Your task to perform on an android device: What's the weather today? Image 0: 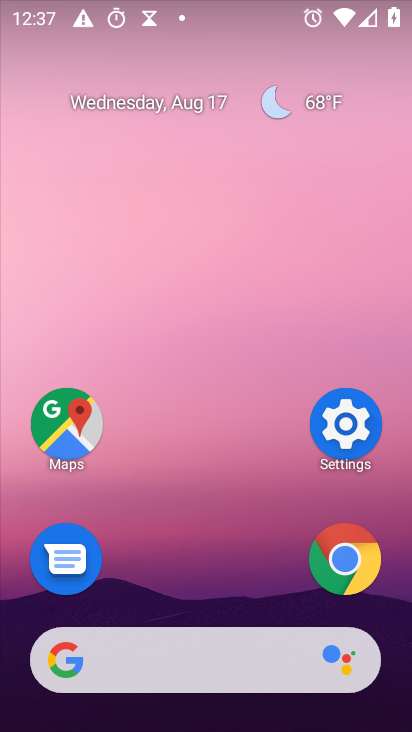
Step 0: click (136, 658)
Your task to perform on an android device: What's the weather today? Image 1: 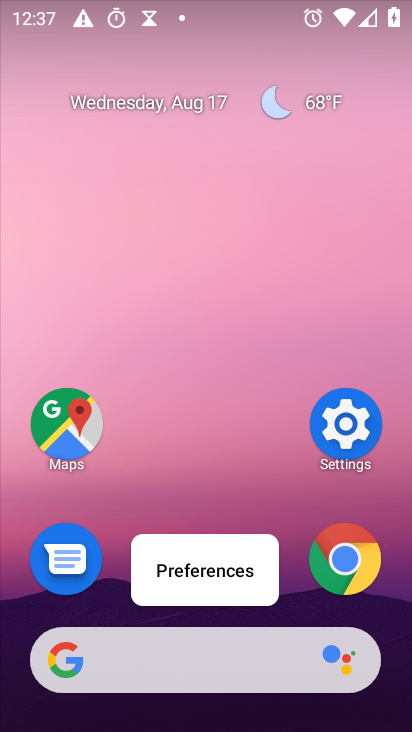
Step 1: click (136, 656)
Your task to perform on an android device: What's the weather today? Image 2: 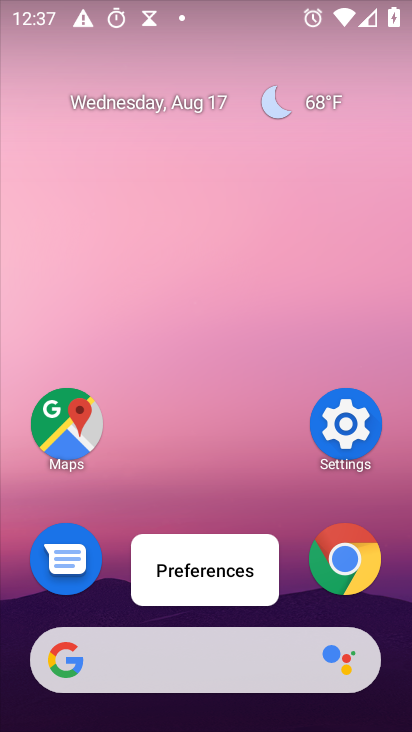
Step 2: click (138, 657)
Your task to perform on an android device: What's the weather today? Image 3: 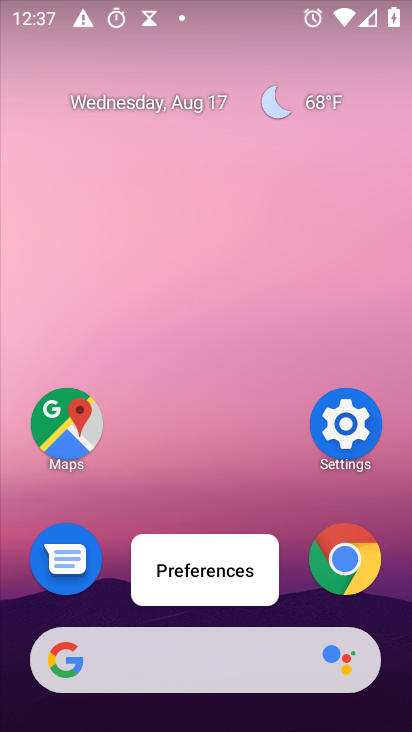
Step 3: click (146, 655)
Your task to perform on an android device: What's the weather today? Image 4: 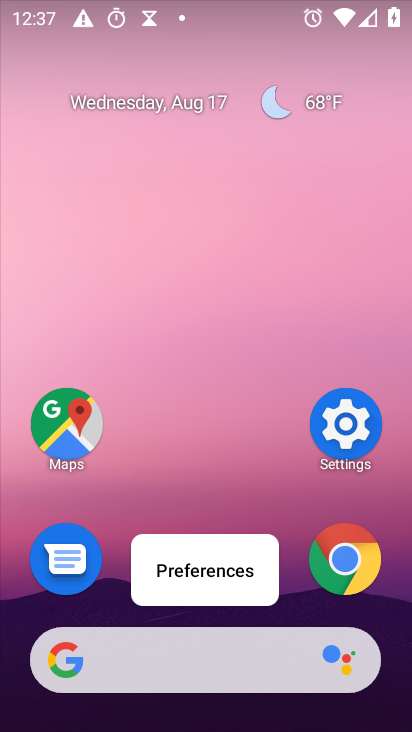
Step 4: click (146, 661)
Your task to perform on an android device: What's the weather today? Image 5: 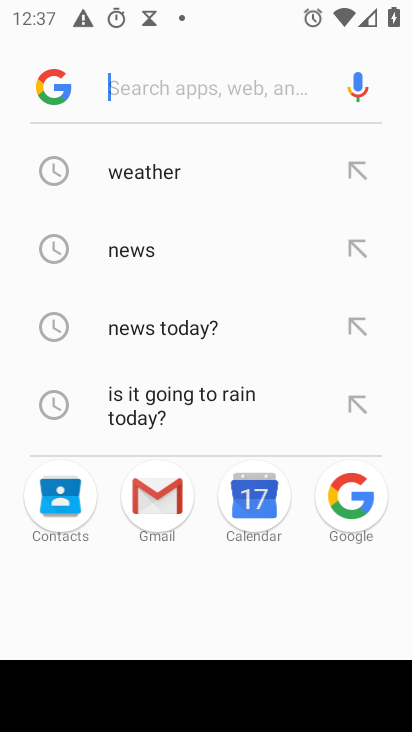
Step 5: click (129, 177)
Your task to perform on an android device: What's the weather today? Image 6: 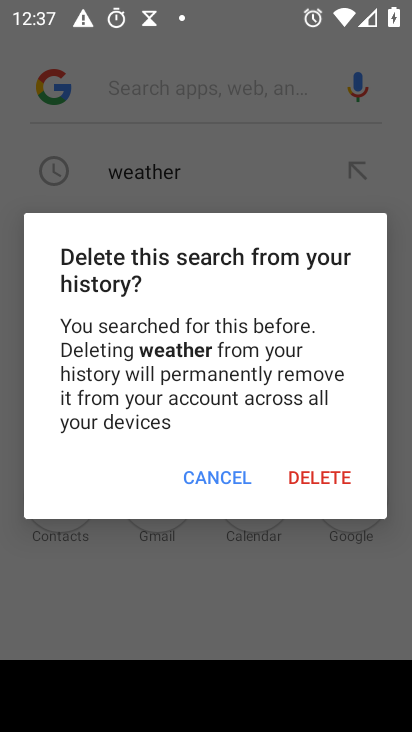
Step 6: click (239, 479)
Your task to perform on an android device: What's the weather today? Image 7: 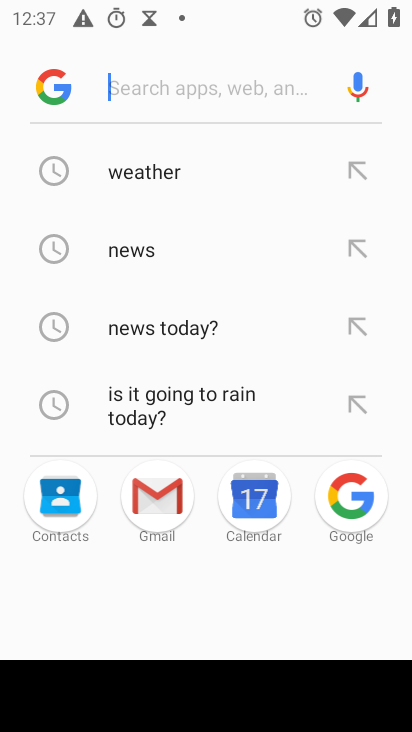
Step 7: click (122, 169)
Your task to perform on an android device: What's the weather today? Image 8: 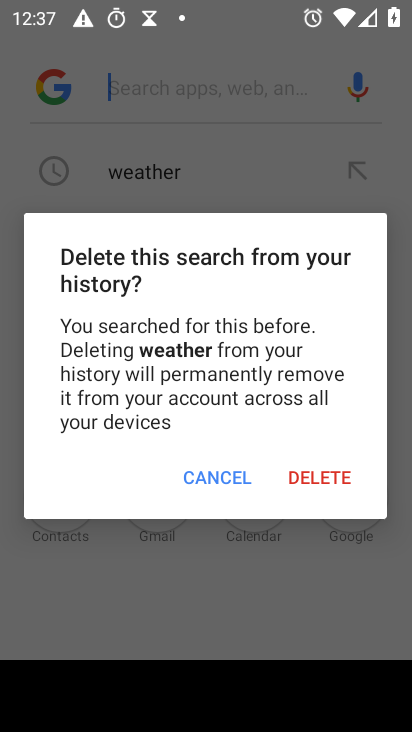
Step 8: click (241, 482)
Your task to perform on an android device: What's the weather today? Image 9: 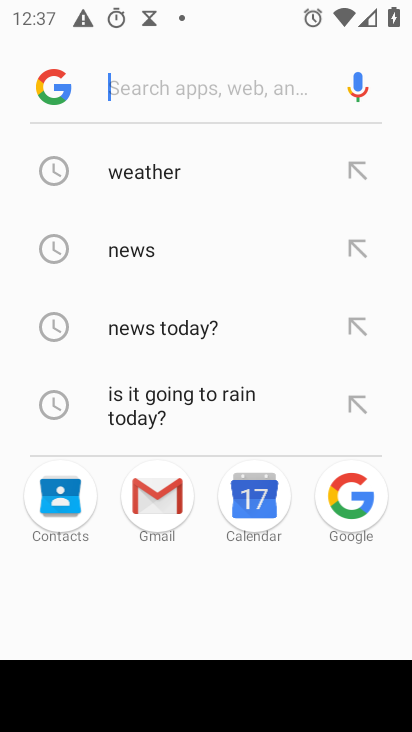
Step 9: click (105, 170)
Your task to perform on an android device: What's the weather today? Image 10: 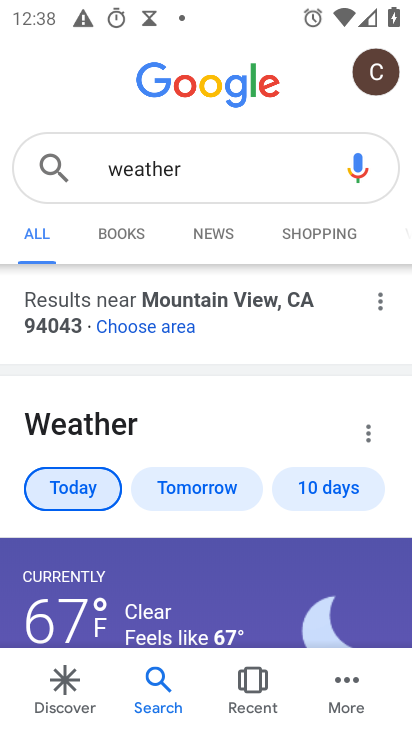
Step 10: task complete